Your task to perform on an android device: add a contact in the contacts app Image 0: 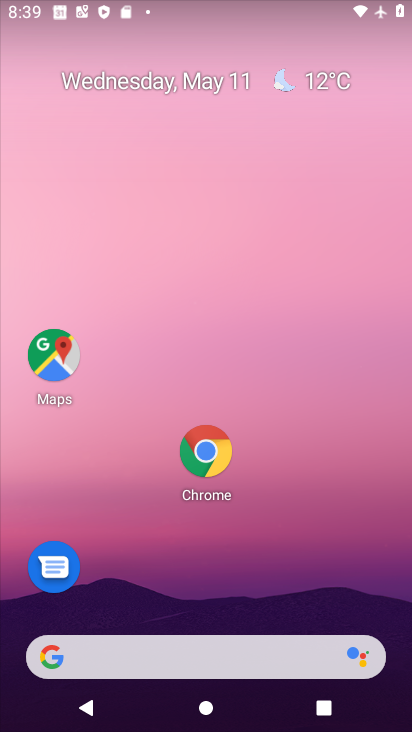
Step 0: drag from (226, 609) to (411, 166)
Your task to perform on an android device: add a contact in the contacts app Image 1: 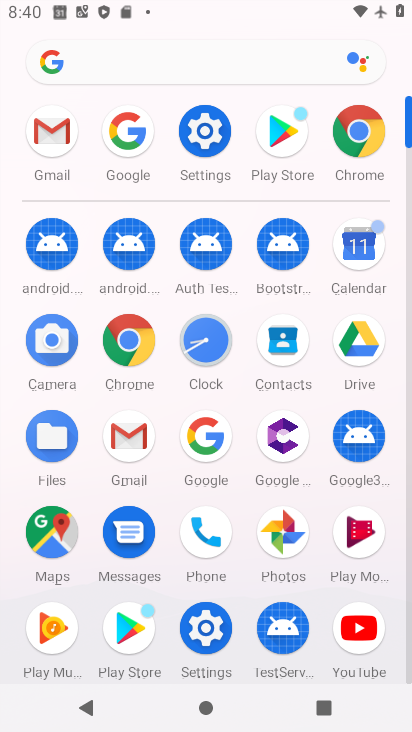
Step 1: click (295, 342)
Your task to perform on an android device: add a contact in the contacts app Image 2: 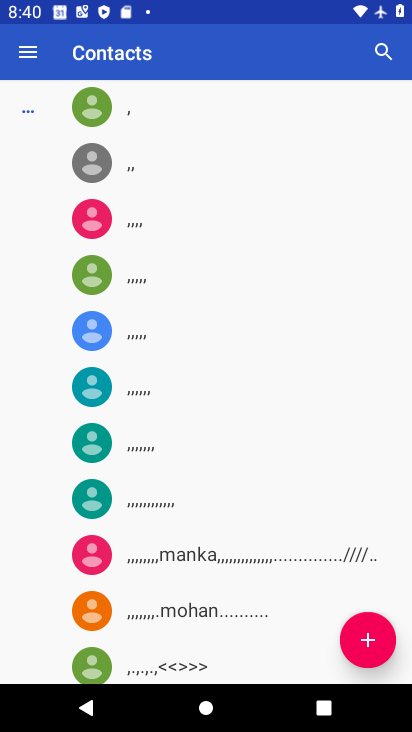
Step 2: click (364, 642)
Your task to perform on an android device: add a contact in the contacts app Image 3: 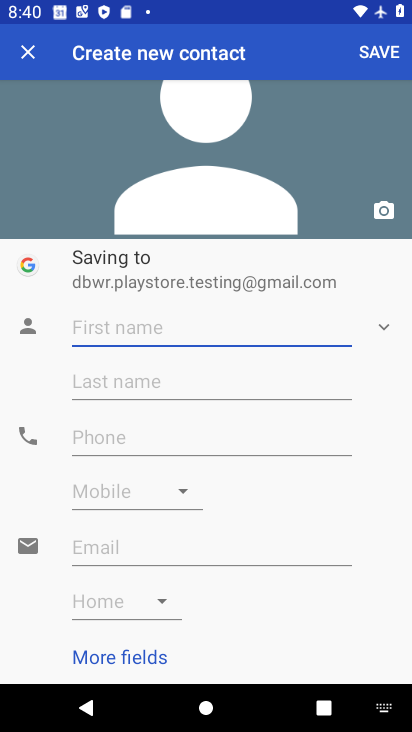
Step 3: type "nnn"
Your task to perform on an android device: add a contact in the contacts app Image 4: 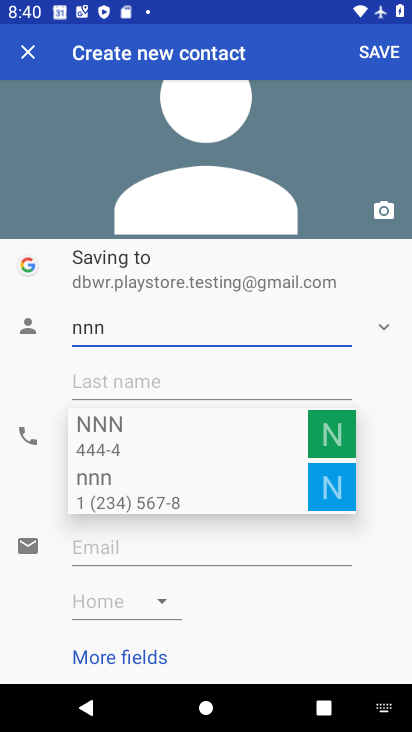
Step 4: type "kjj"
Your task to perform on an android device: add a contact in the contacts app Image 5: 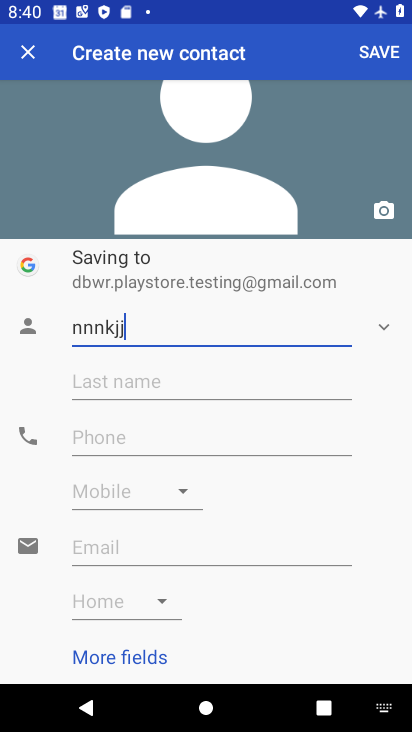
Step 5: click (167, 430)
Your task to perform on an android device: add a contact in the contacts app Image 6: 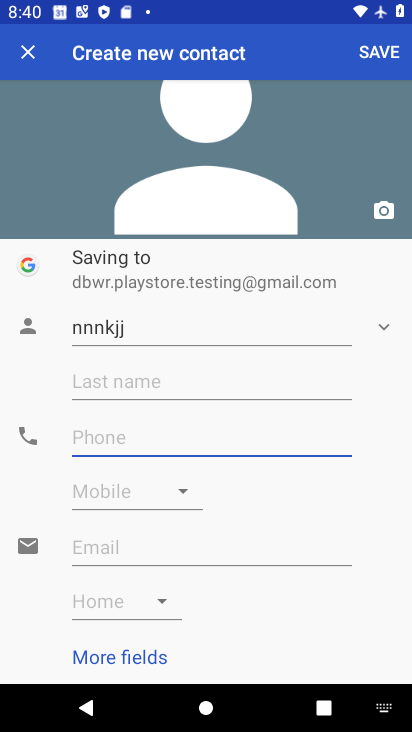
Step 6: type "877"
Your task to perform on an android device: add a contact in the contacts app Image 7: 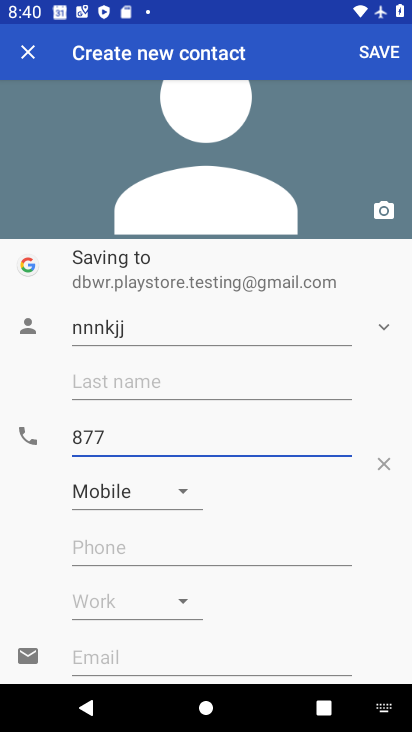
Step 7: click (370, 59)
Your task to perform on an android device: add a contact in the contacts app Image 8: 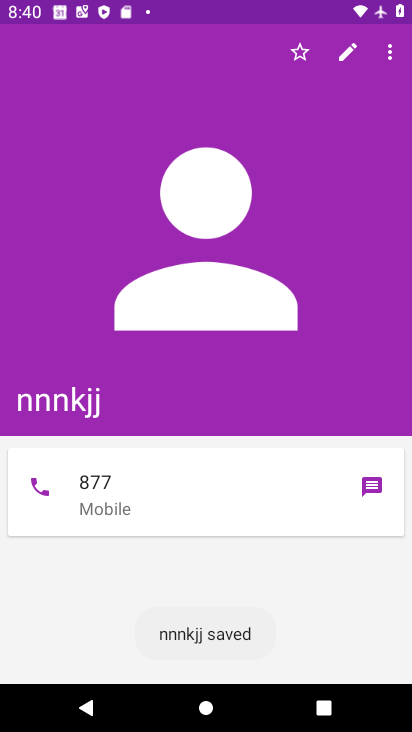
Step 8: task complete